Your task to perform on an android device: Go to sound settings Image 0: 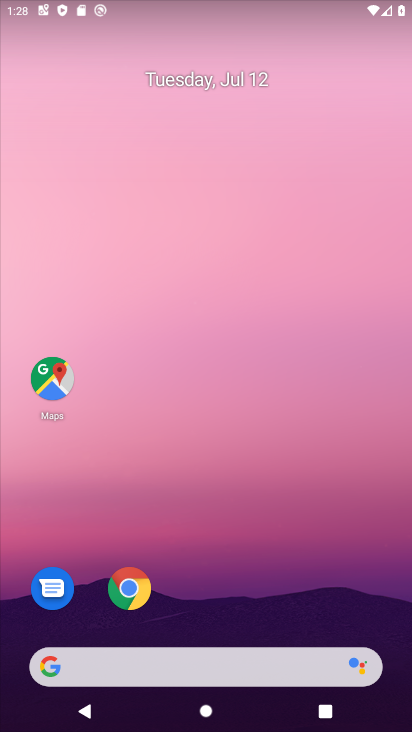
Step 0: drag from (256, 591) to (318, 151)
Your task to perform on an android device: Go to sound settings Image 1: 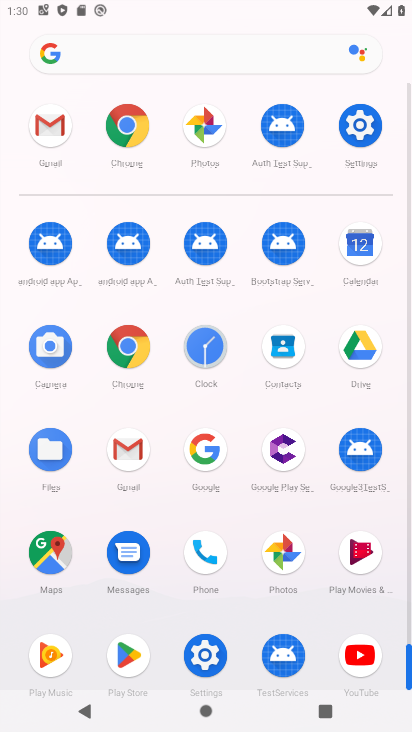
Step 1: click (198, 649)
Your task to perform on an android device: Go to sound settings Image 2: 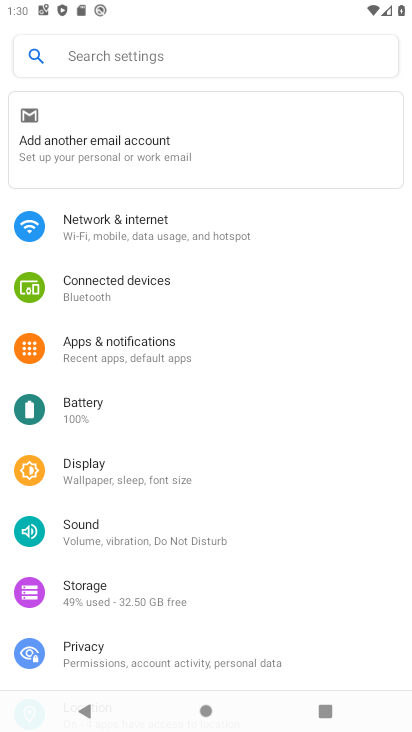
Step 2: click (80, 543)
Your task to perform on an android device: Go to sound settings Image 3: 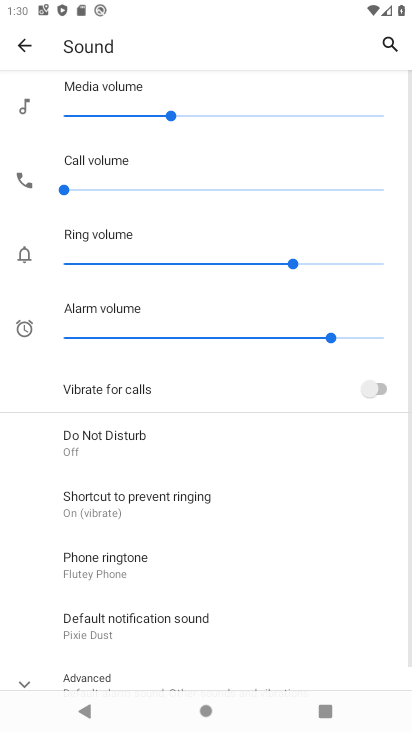
Step 3: task complete